Your task to perform on an android device: open app "Google Play Music" Image 0: 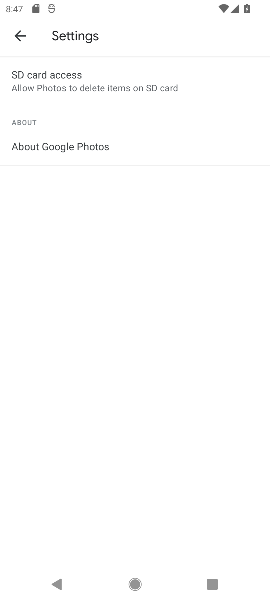
Step 0: press home button
Your task to perform on an android device: open app "Google Play Music" Image 1: 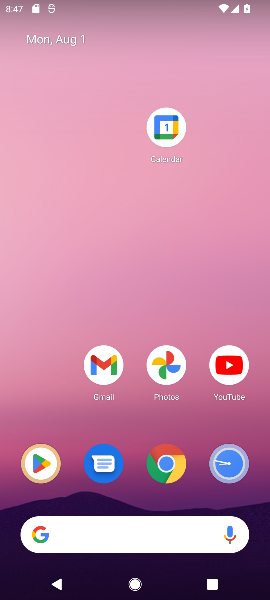
Step 1: click (38, 459)
Your task to perform on an android device: open app "Google Play Music" Image 2: 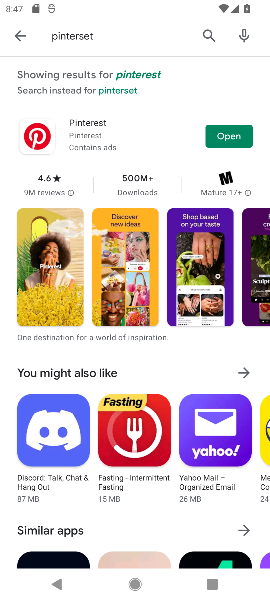
Step 2: task complete